Your task to perform on an android device: change notifications settings Image 0: 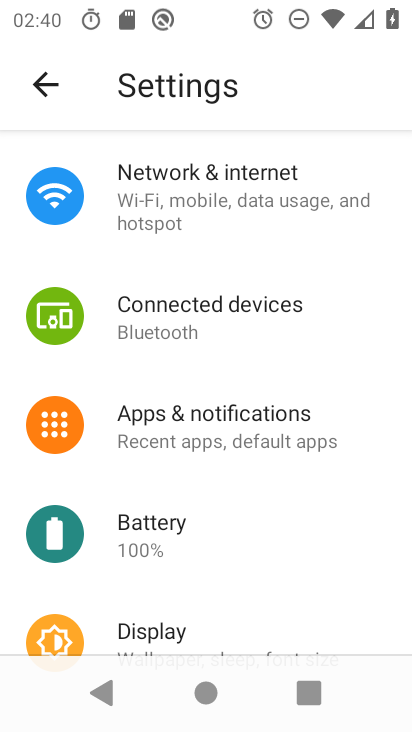
Step 0: press home button
Your task to perform on an android device: change notifications settings Image 1: 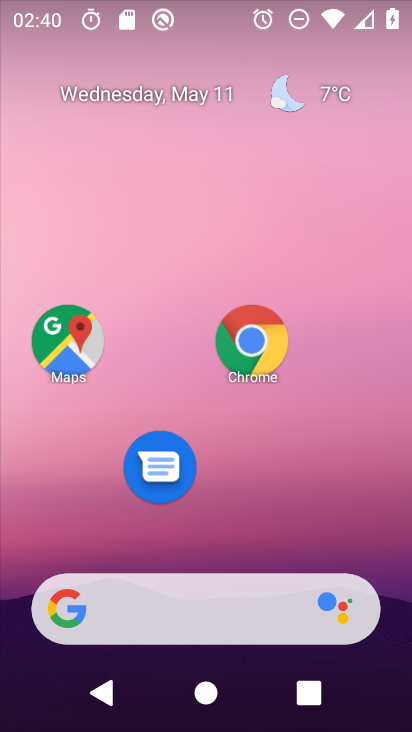
Step 1: drag from (171, 617) to (314, 163)
Your task to perform on an android device: change notifications settings Image 2: 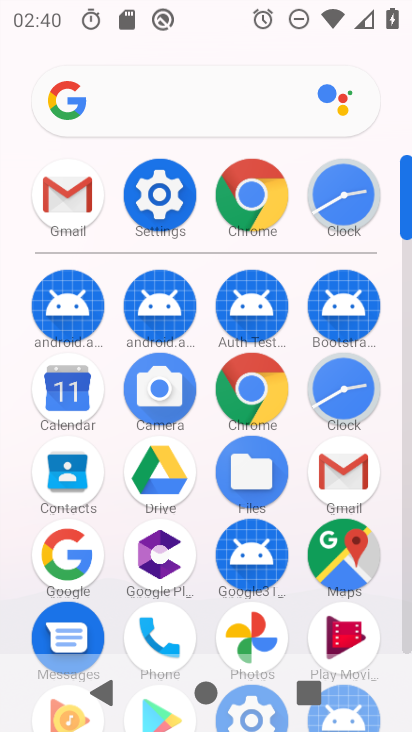
Step 2: click (169, 197)
Your task to perform on an android device: change notifications settings Image 3: 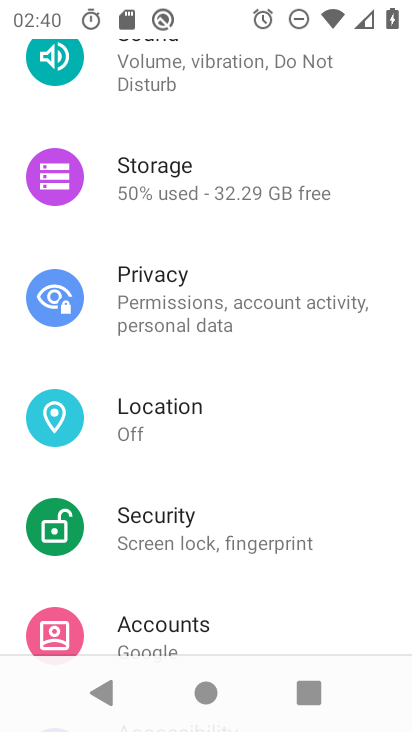
Step 3: drag from (334, 122) to (243, 527)
Your task to perform on an android device: change notifications settings Image 4: 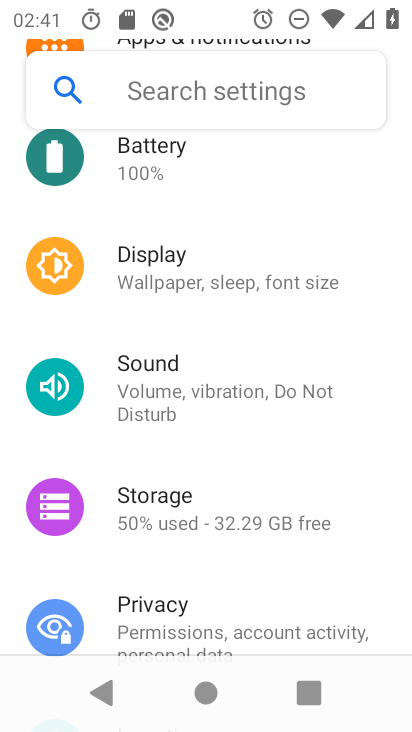
Step 4: drag from (275, 219) to (173, 537)
Your task to perform on an android device: change notifications settings Image 5: 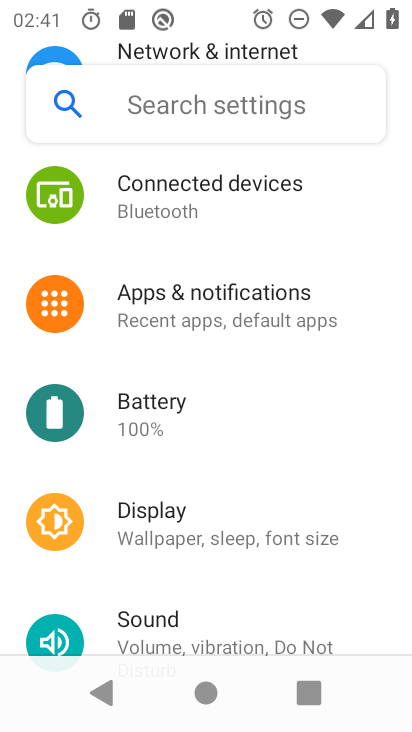
Step 5: click (247, 301)
Your task to perform on an android device: change notifications settings Image 6: 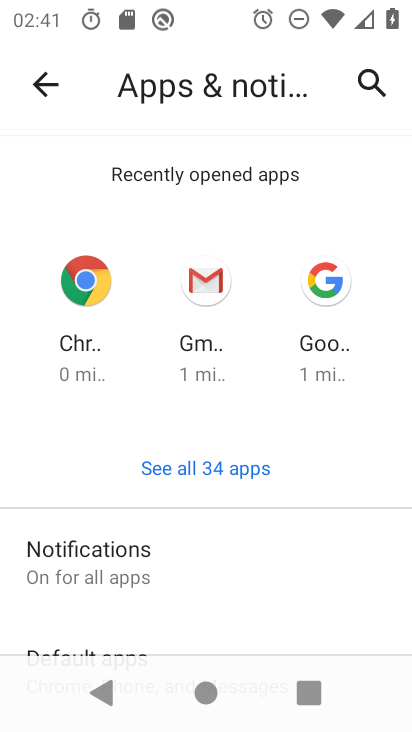
Step 6: click (137, 546)
Your task to perform on an android device: change notifications settings Image 7: 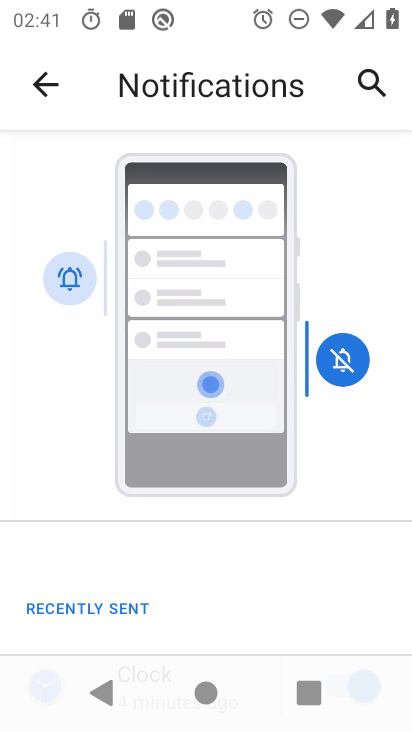
Step 7: drag from (191, 557) to (364, 184)
Your task to perform on an android device: change notifications settings Image 8: 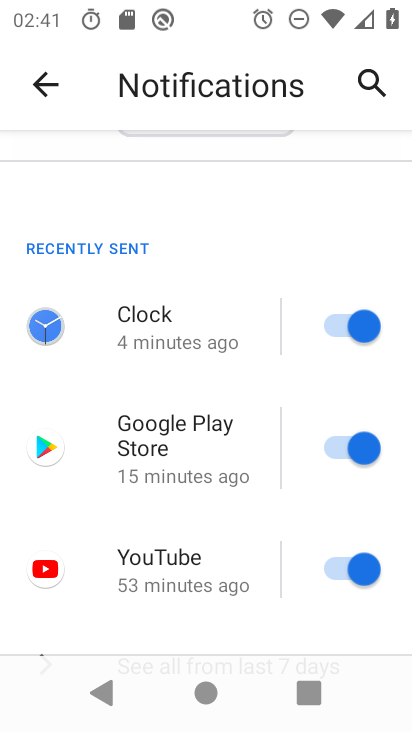
Step 8: click (340, 446)
Your task to perform on an android device: change notifications settings Image 9: 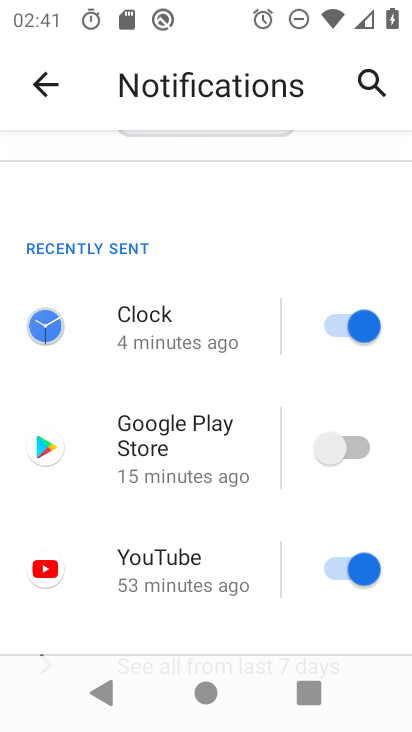
Step 9: task complete